Your task to perform on an android device: Turn off the flashlight Image 0: 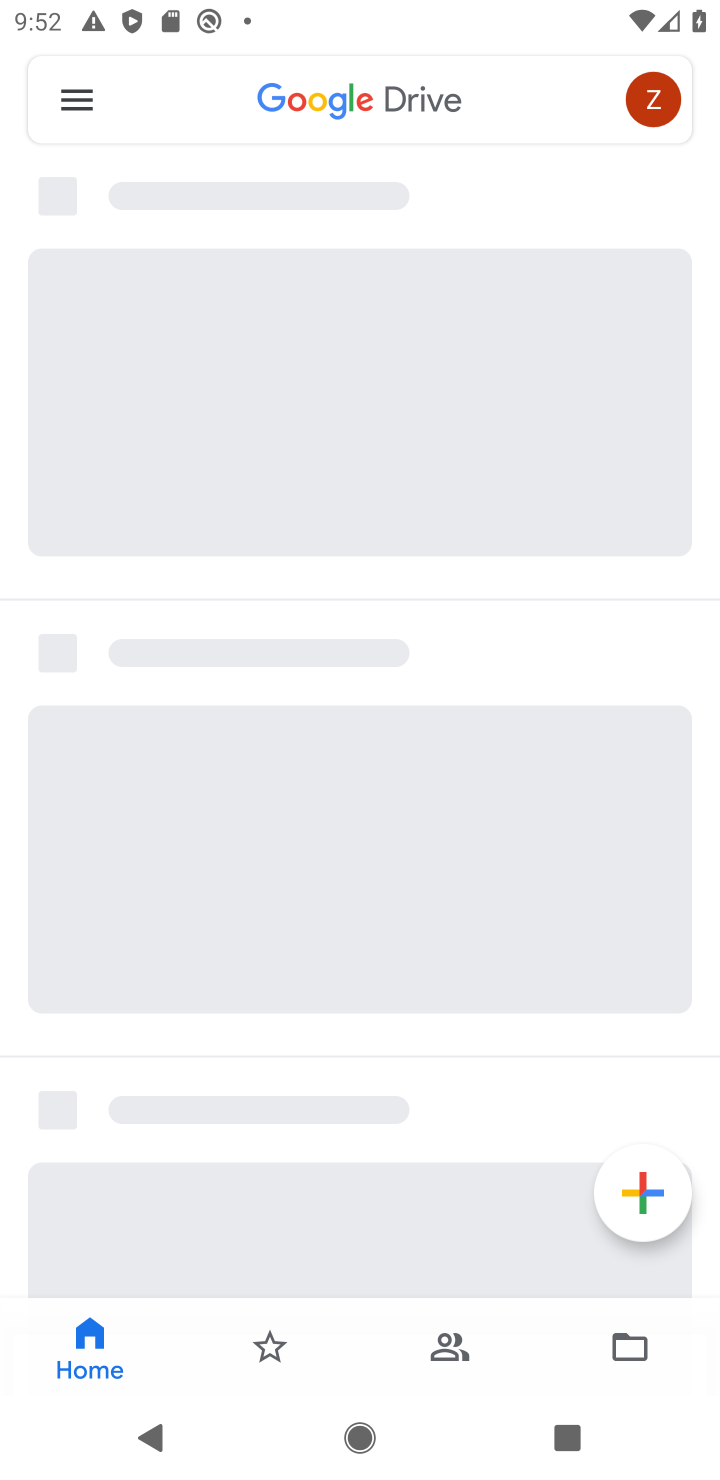
Step 0: press home button
Your task to perform on an android device: Turn off the flashlight Image 1: 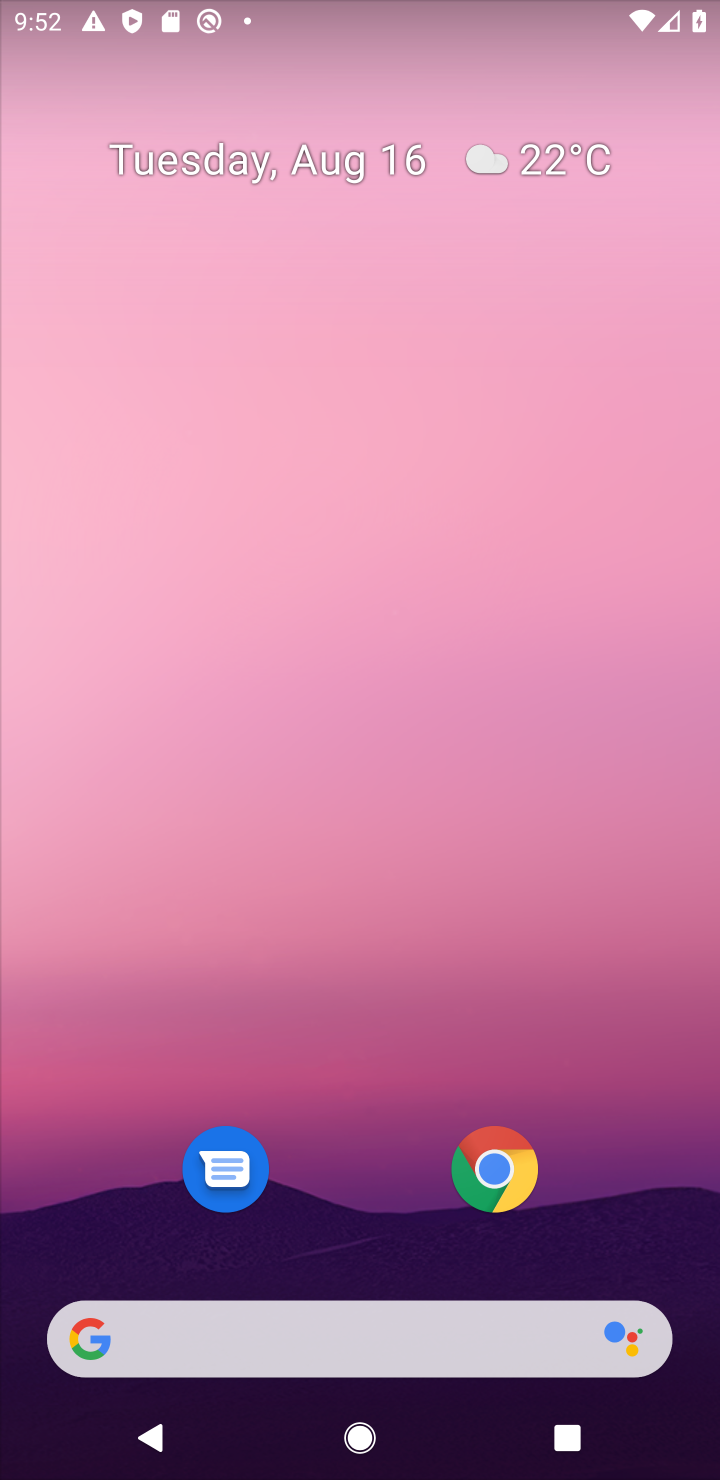
Step 1: task complete